Your task to perform on an android device: open a new tab in the chrome app Image 0: 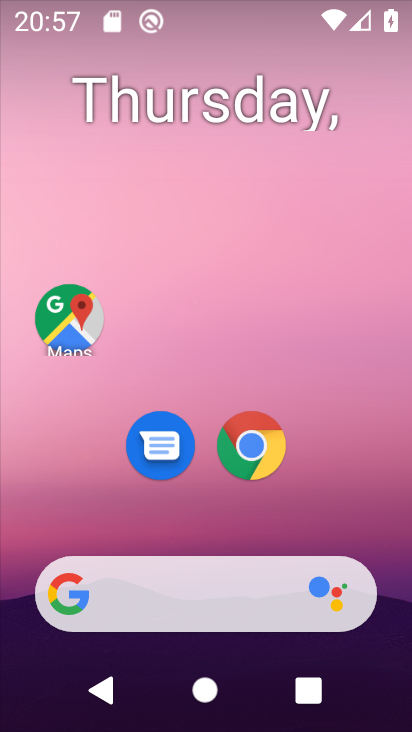
Step 0: click (267, 456)
Your task to perform on an android device: open a new tab in the chrome app Image 1: 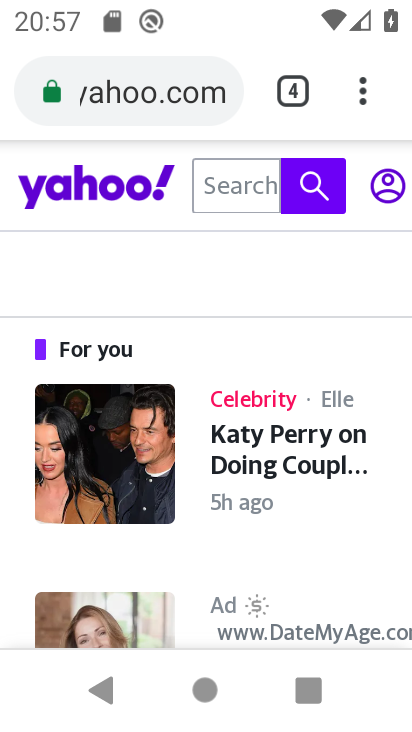
Step 1: task complete